Your task to perform on an android device: change the clock display to digital Image 0: 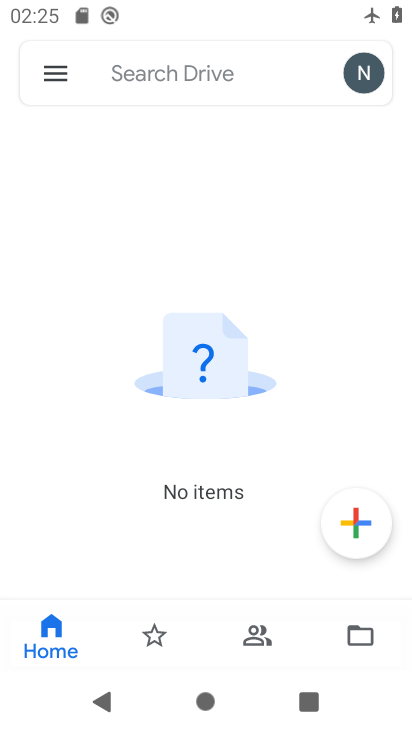
Step 0: press home button
Your task to perform on an android device: change the clock display to digital Image 1: 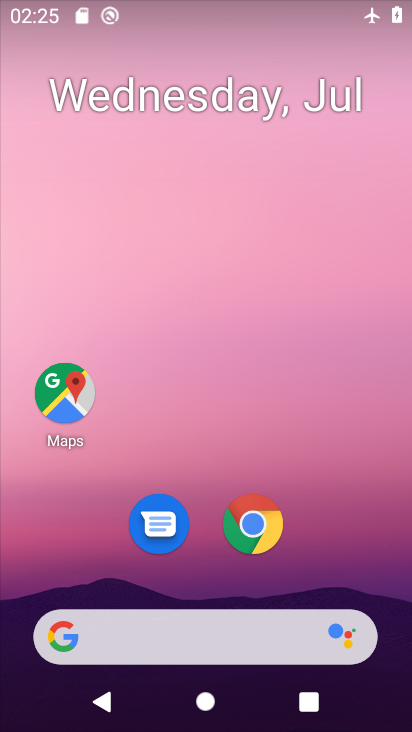
Step 1: drag from (308, 558) to (306, 83)
Your task to perform on an android device: change the clock display to digital Image 2: 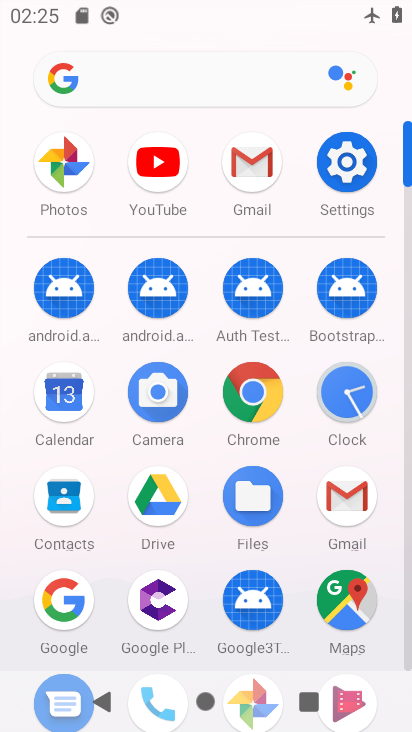
Step 2: click (342, 404)
Your task to perform on an android device: change the clock display to digital Image 3: 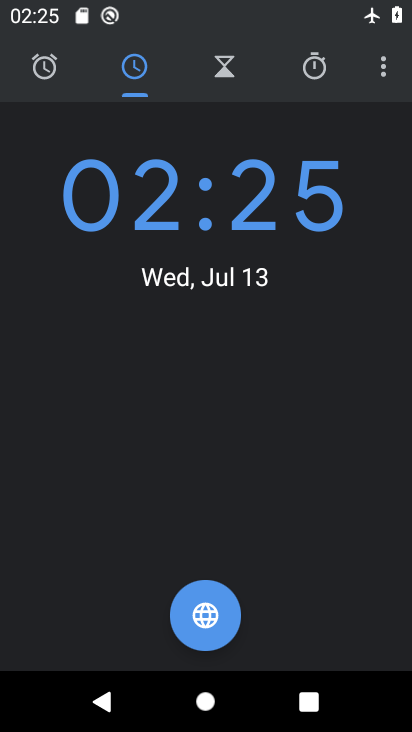
Step 3: task complete